Your task to perform on an android device: turn off wifi Image 0: 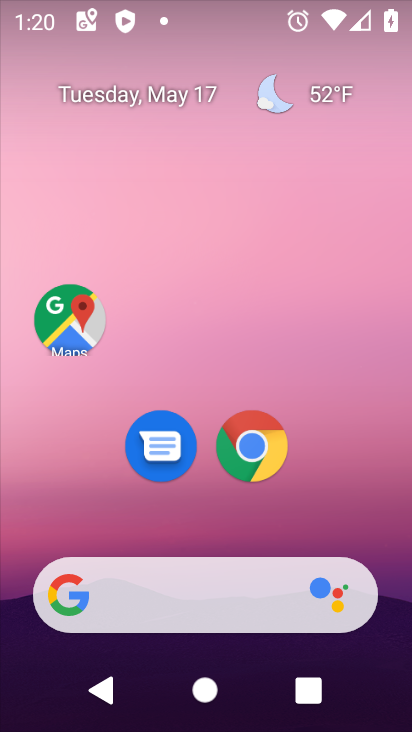
Step 0: drag from (204, 520) to (266, 177)
Your task to perform on an android device: turn off wifi Image 1: 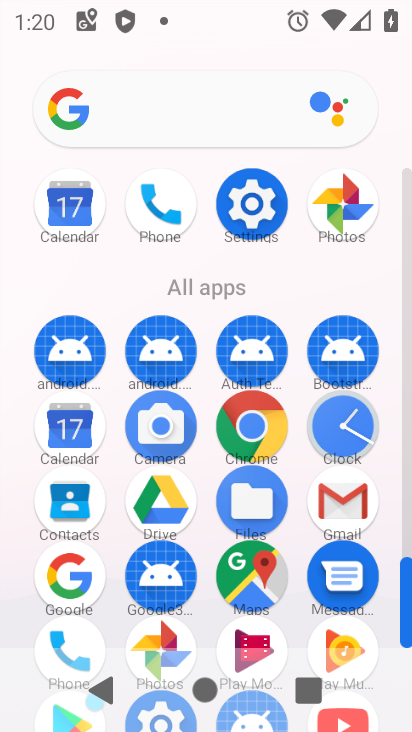
Step 1: click (254, 203)
Your task to perform on an android device: turn off wifi Image 2: 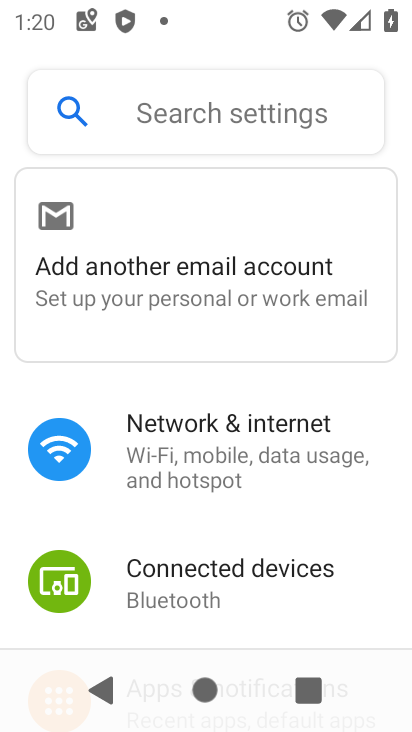
Step 2: click (215, 468)
Your task to perform on an android device: turn off wifi Image 3: 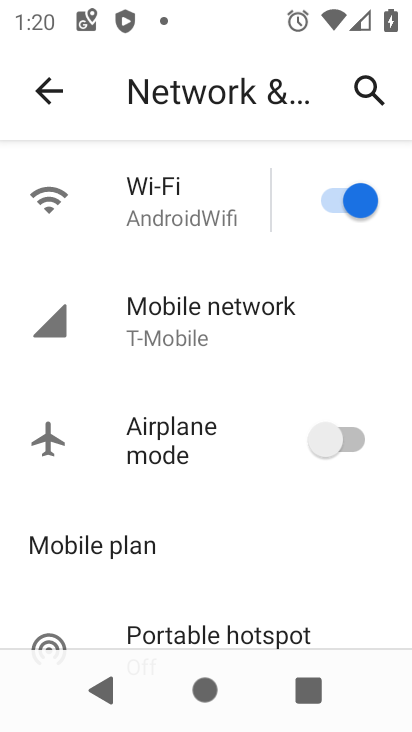
Step 3: click (322, 194)
Your task to perform on an android device: turn off wifi Image 4: 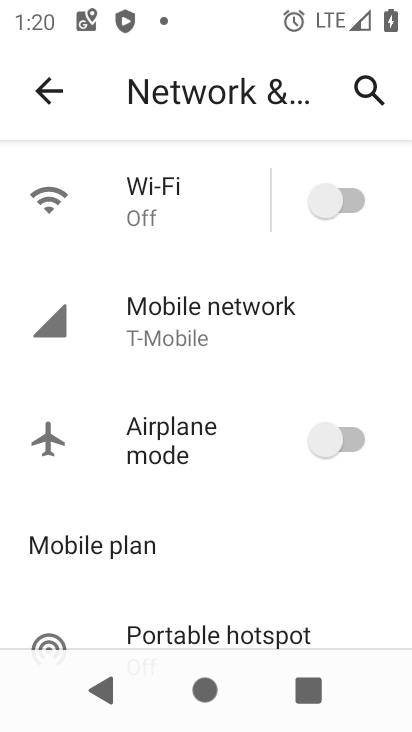
Step 4: task complete